Your task to perform on an android device: Search for usb-c to usb-b on target, select the first entry, add it to the cart, then select checkout. Image 0: 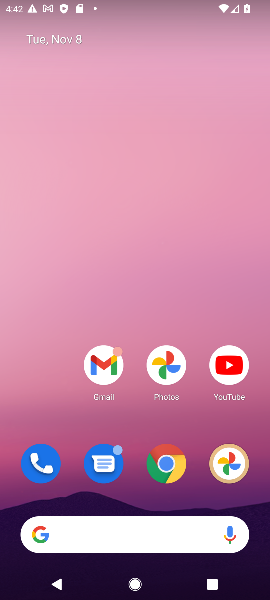
Step 0: click (155, 452)
Your task to perform on an android device: Search for usb-c to usb-b on target, select the first entry, add it to the cart, then select checkout. Image 1: 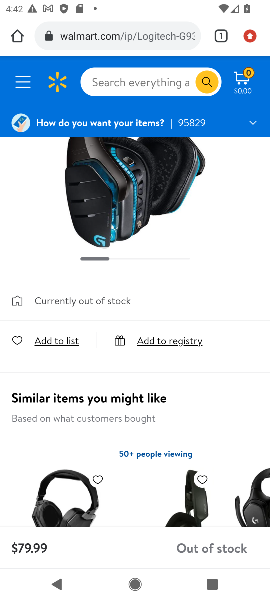
Step 1: click (72, 33)
Your task to perform on an android device: Search for usb-c to usb-b on target, select the first entry, add it to the cart, then select checkout. Image 2: 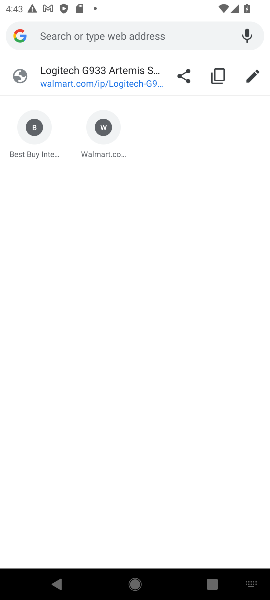
Step 2: type "target"
Your task to perform on an android device: Search for usb-c to usb-b on target, select the first entry, add it to the cart, then select checkout. Image 3: 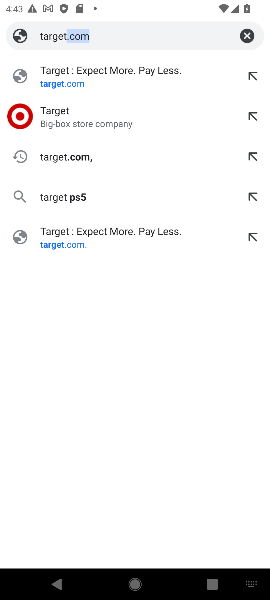
Step 3: click (53, 108)
Your task to perform on an android device: Search for usb-c to usb-b on target, select the first entry, add it to the cart, then select checkout. Image 4: 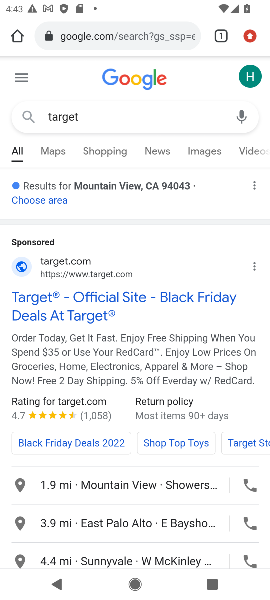
Step 4: click (27, 292)
Your task to perform on an android device: Search for usb-c to usb-b on target, select the first entry, add it to the cart, then select checkout. Image 5: 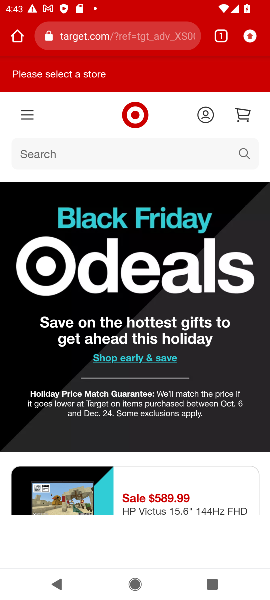
Step 5: click (57, 143)
Your task to perform on an android device: Search for usb-c to usb-b on target, select the first entry, add it to the cart, then select checkout. Image 6: 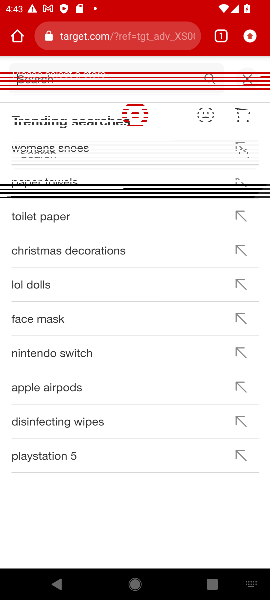
Step 6: type "usb-c to usb-b "
Your task to perform on an android device: Search for usb-c to usb-b on target, select the first entry, add it to the cart, then select checkout. Image 7: 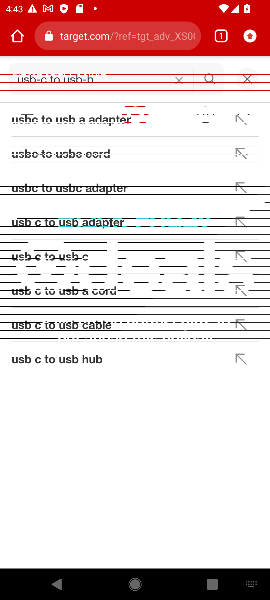
Step 7: click (213, 73)
Your task to perform on an android device: Search for usb-c to usb-b on target, select the first entry, add it to the cart, then select checkout. Image 8: 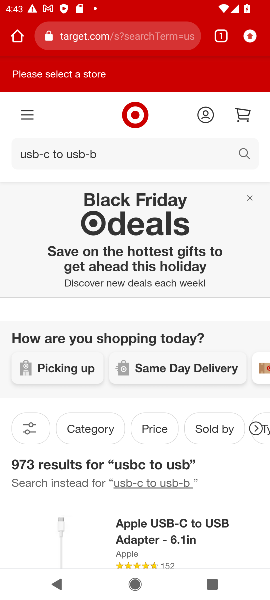
Step 8: drag from (115, 509) to (191, 268)
Your task to perform on an android device: Search for usb-c to usb-b on target, select the first entry, add it to the cart, then select checkout. Image 9: 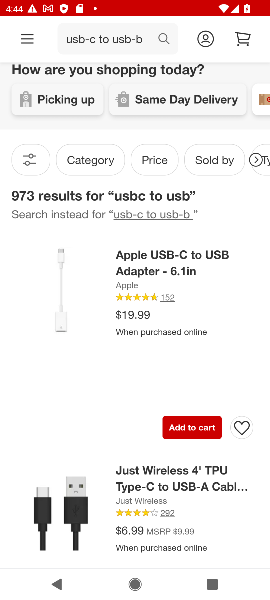
Step 9: click (190, 433)
Your task to perform on an android device: Search for usb-c to usb-b on target, select the first entry, add it to the cart, then select checkout. Image 10: 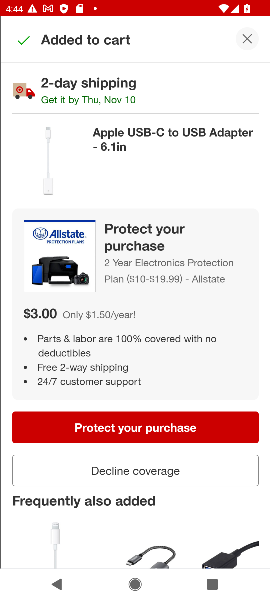
Step 10: click (242, 38)
Your task to perform on an android device: Search for usb-c to usb-b on target, select the first entry, add it to the cart, then select checkout. Image 11: 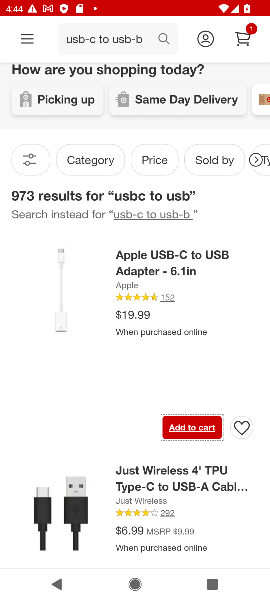
Step 11: click (242, 38)
Your task to perform on an android device: Search for usb-c to usb-b on target, select the first entry, add it to the cart, then select checkout. Image 12: 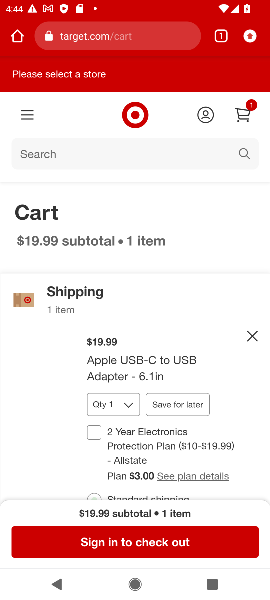
Step 12: click (184, 529)
Your task to perform on an android device: Search for usb-c to usb-b on target, select the first entry, add it to the cart, then select checkout. Image 13: 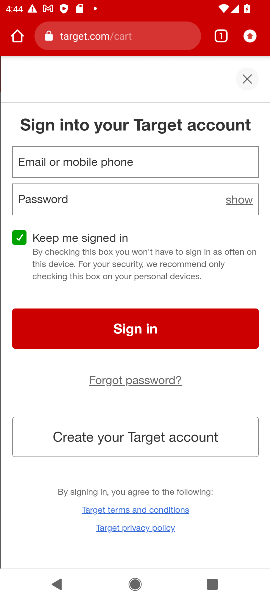
Step 13: task complete